Your task to perform on an android device: change the clock display to digital Image 0: 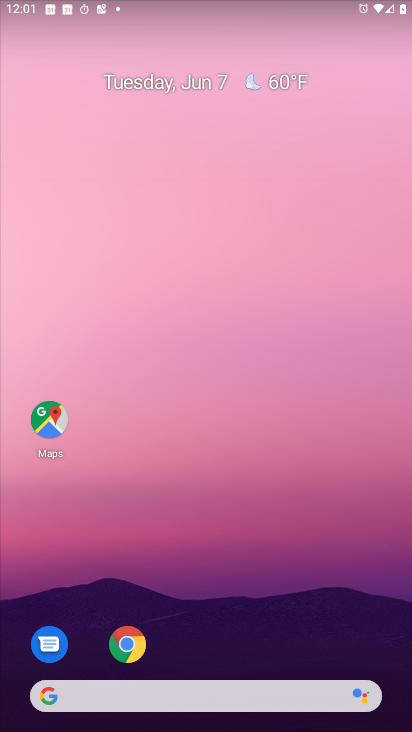
Step 0: drag from (144, 716) to (170, 165)
Your task to perform on an android device: change the clock display to digital Image 1: 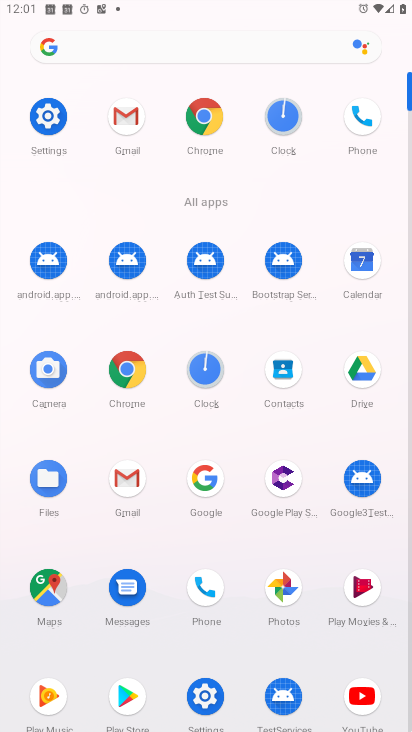
Step 1: click (293, 121)
Your task to perform on an android device: change the clock display to digital Image 2: 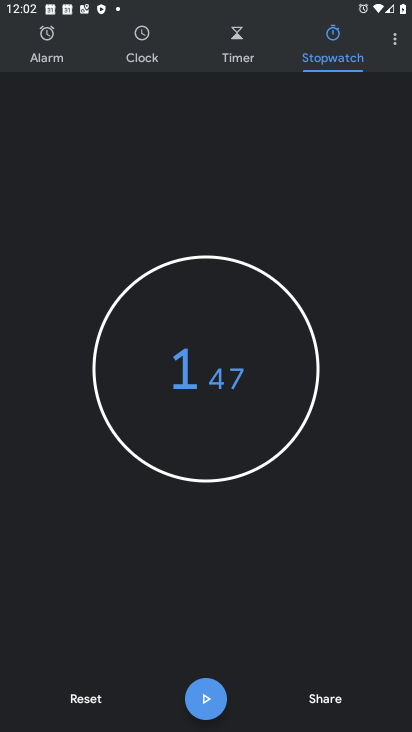
Step 2: click (398, 49)
Your task to perform on an android device: change the clock display to digital Image 3: 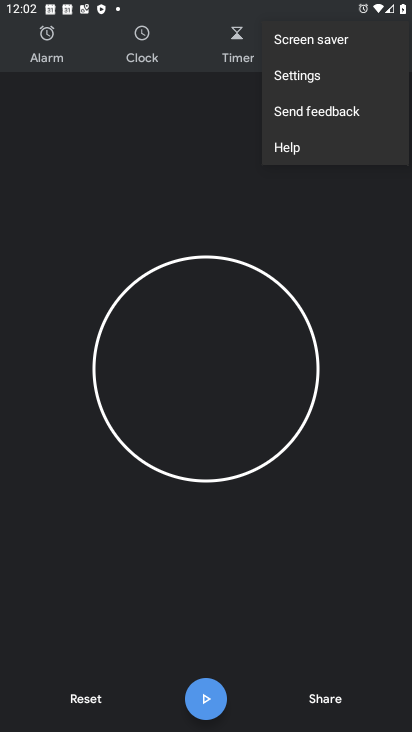
Step 3: click (321, 81)
Your task to perform on an android device: change the clock display to digital Image 4: 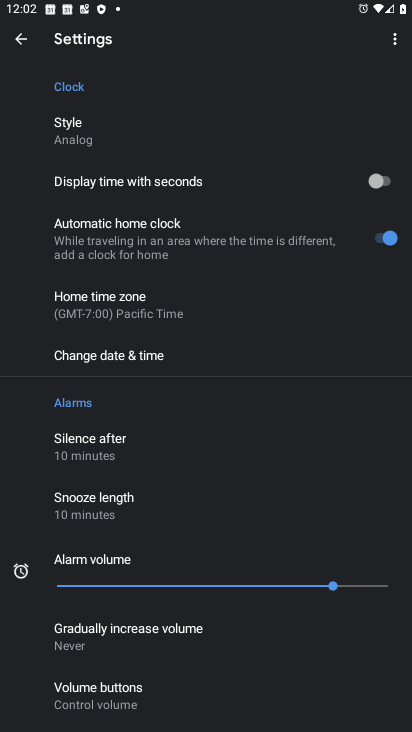
Step 4: click (190, 141)
Your task to perform on an android device: change the clock display to digital Image 5: 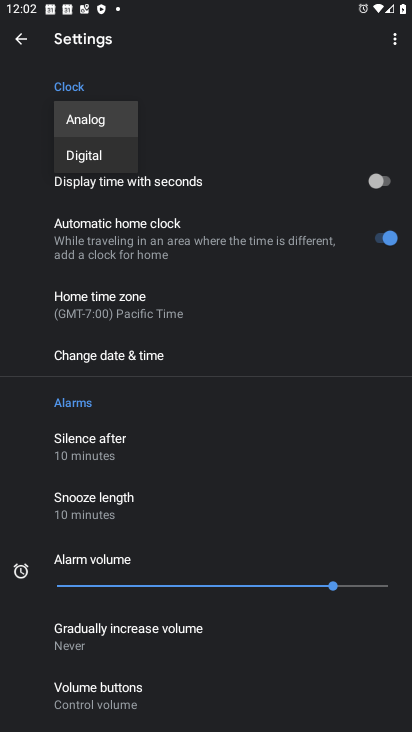
Step 5: click (95, 158)
Your task to perform on an android device: change the clock display to digital Image 6: 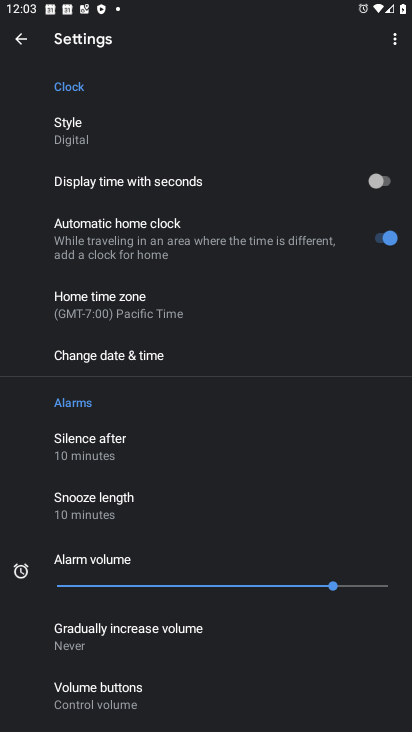
Step 6: task complete